Your task to perform on an android device: Go to ESPN.com Image 0: 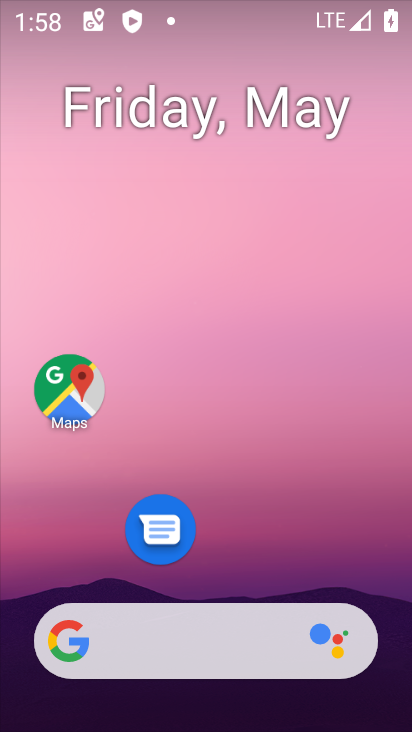
Step 0: drag from (225, 312) to (225, 244)
Your task to perform on an android device: Go to ESPN.com Image 1: 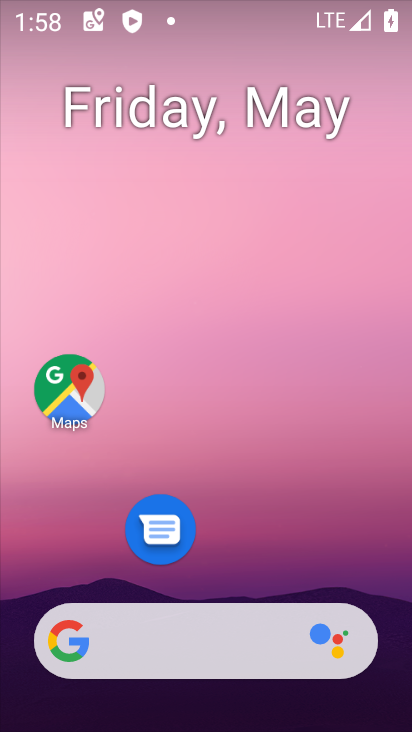
Step 1: drag from (216, 568) to (215, 335)
Your task to perform on an android device: Go to ESPN.com Image 2: 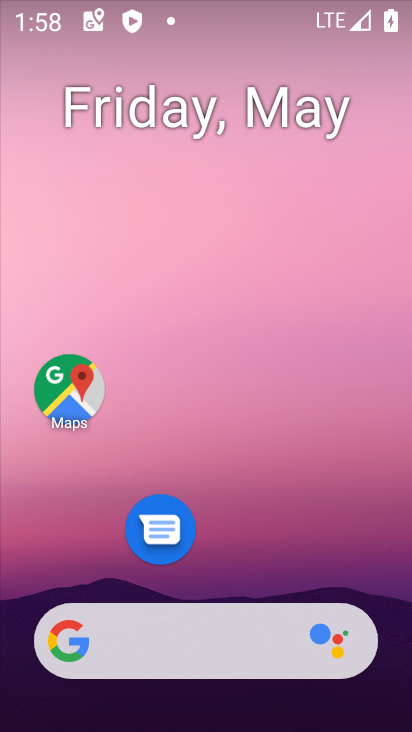
Step 2: drag from (211, 574) to (219, 269)
Your task to perform on an android device: Go to ESPN.com Image 3: 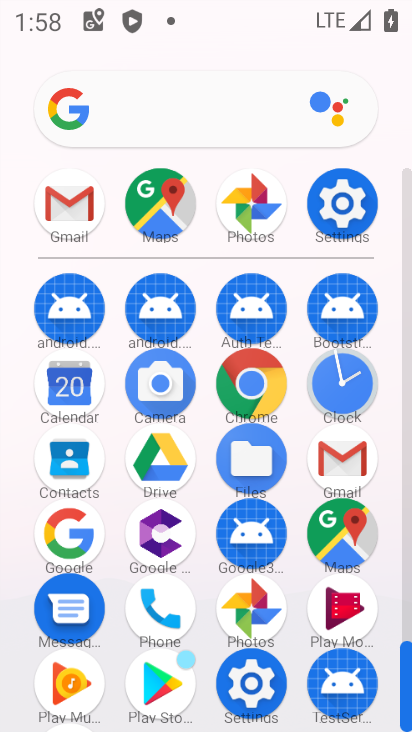
Step 3: click (247, 371)
Your task to perform on an android device: Go to ESPN.com Image 4: 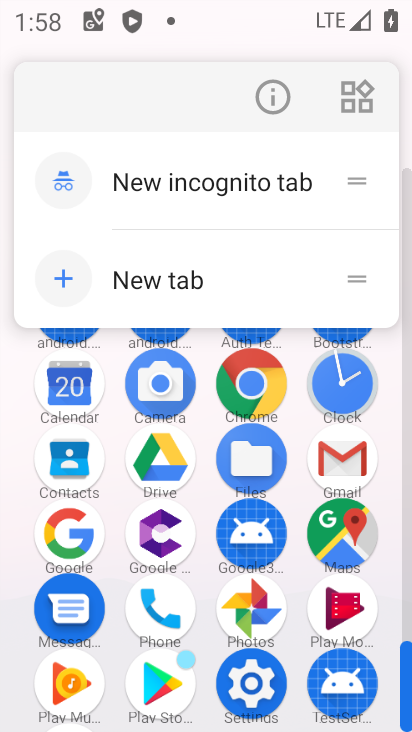
Step 4: click (268, 107)
Your task to perform on an android device: Go to ESPN.com Image 5: 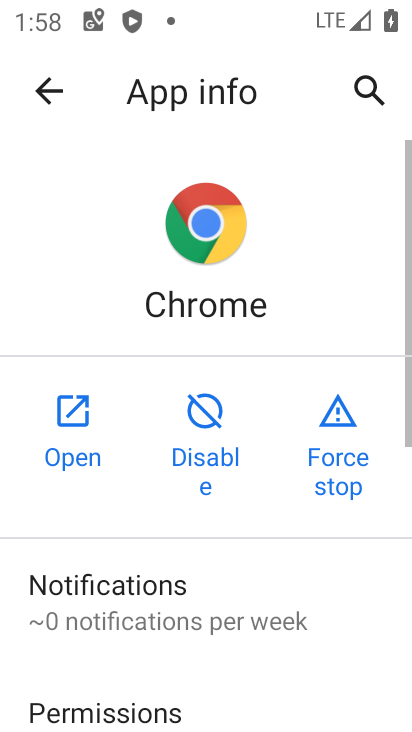
Step 5: click (79, 413)
Your task to perform on an android device: Go to ESPN.com Image 6: 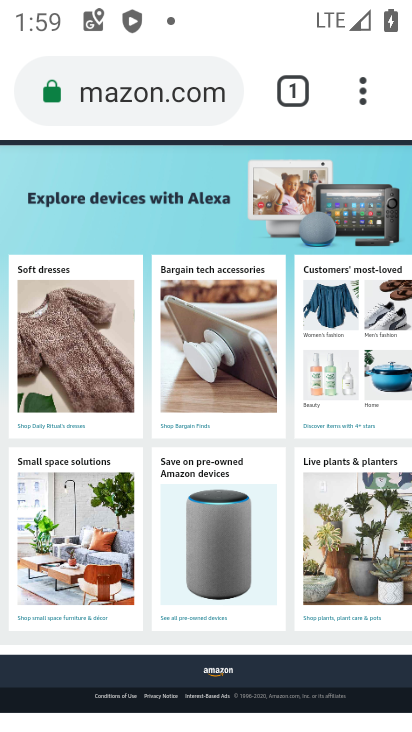
Step 6: click (145, 91)
Your task to perform on an android device: Go to ESPN.com Image 7: 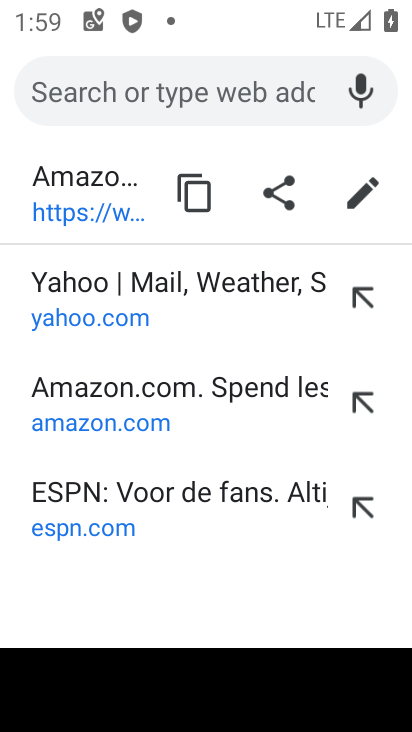
Step 7: type "espn.com"
Your task to perform on an android device: Go to ESPN.com Image 8: 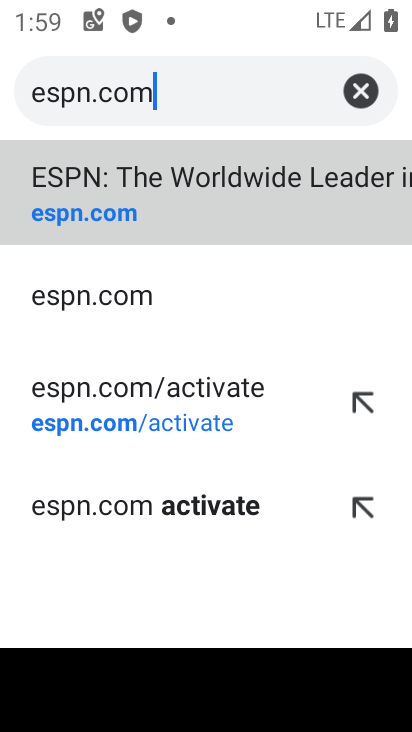
Step 8: click (130, 205)
Your task to perform on an android device: Go to ESPN.com Image 9: 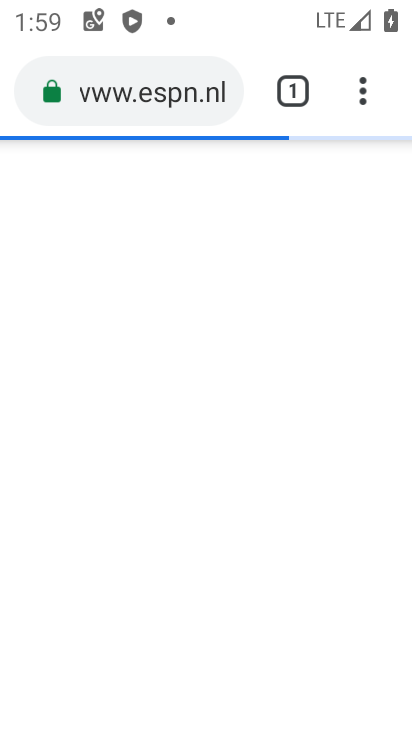
Step 9: task complete